Your task to perform on an android device: change the upload size in google photos Image 0: 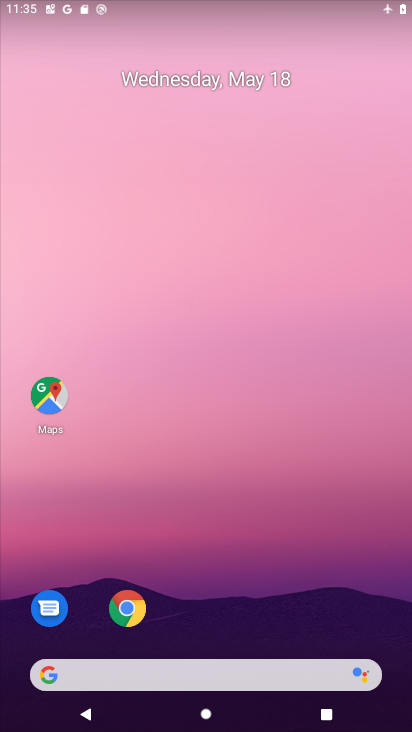
Step 0: drag from (219, 639) to (201, 162)
Your task to perform on an android device: change the upload size in google photos Image 1: 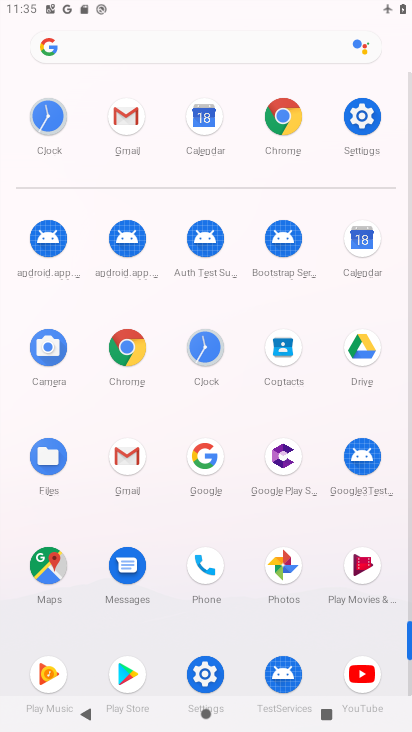
Step 1: click (287, 574)
Your task to perform on an android device: change the upload size in google photos Image 2: 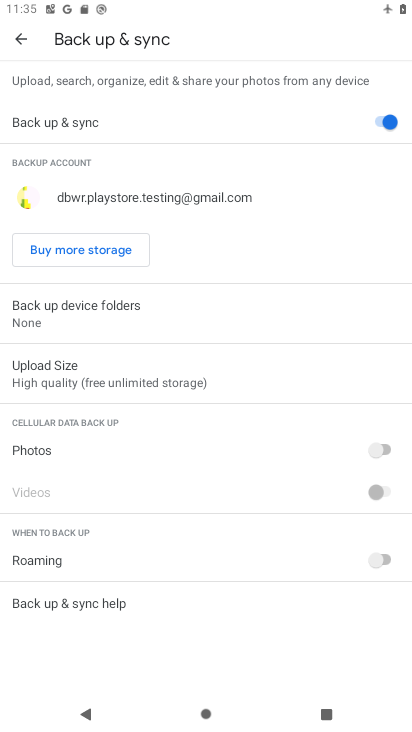
Step 2: click (60, 375)
Your task to perform on an android device: change the upload size in google photos Image 3: 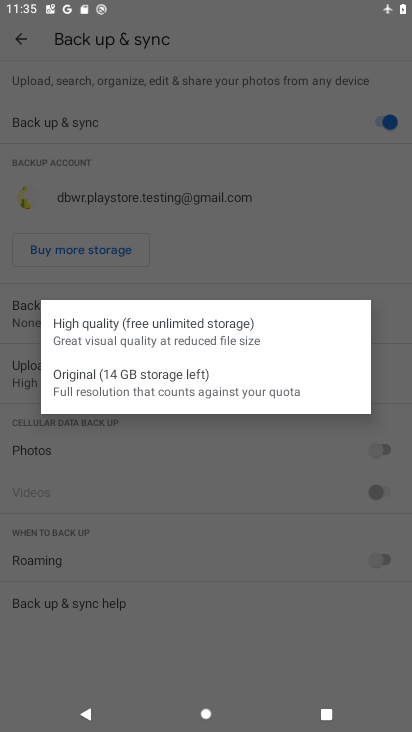
Step 3: click (64, 376)
Your task to perform on an android device: change the upload size in google photos Image 4: 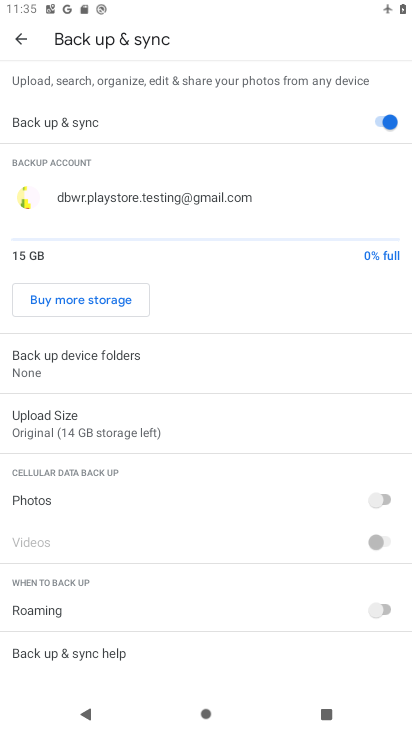
Step 4: task complete